Your task to perform on an android device: open chrome and create a bookmark for the current page Image 0: 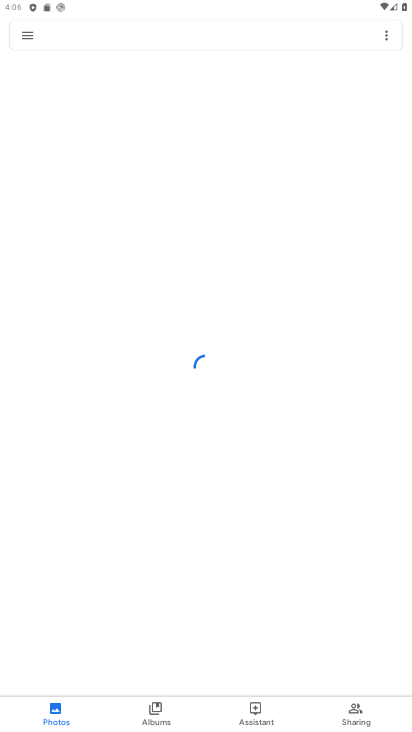
Step 0: press home button
Your task to perform on an android device: open chrome and create a bookmark for the current page Image 1: 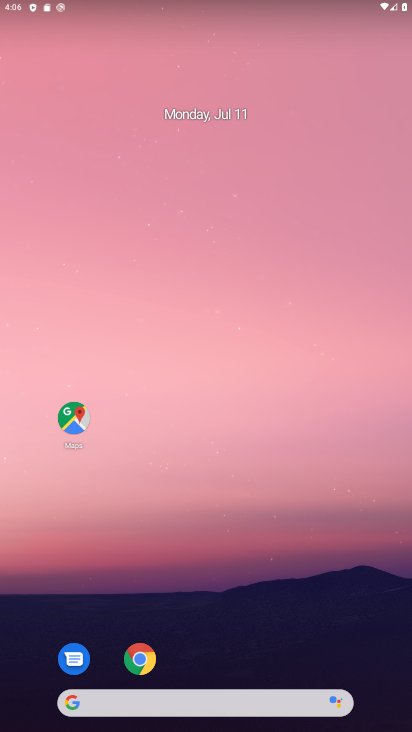
Step 1: click (149, 670)
Your task to perform on an android device: open chrome and create a bookmark for the current page Image 2: 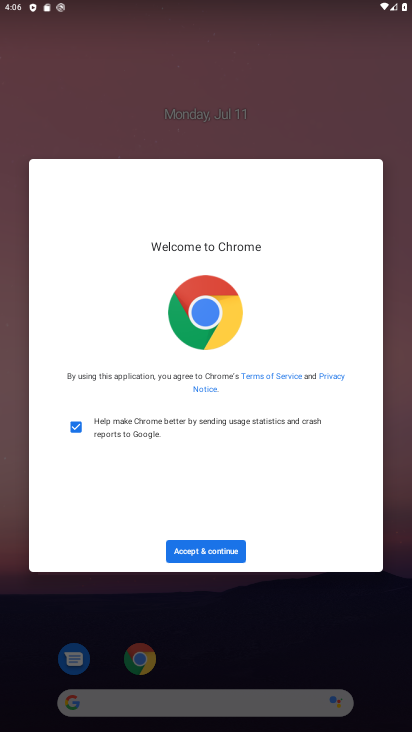
Step 2: click (219, 555)
Your task to perform on an android device: open chrome and create a bookmark for the current page Image 3: 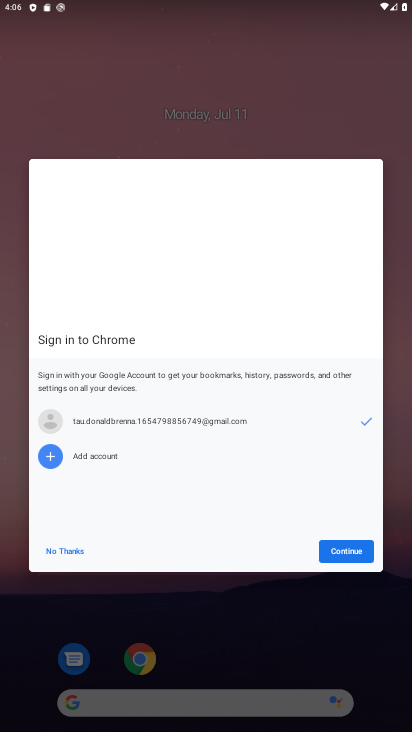
Step 3: click (335, 554)
Your task to perform on an android device: open chrome and create a bookmark for the current page Image 4: 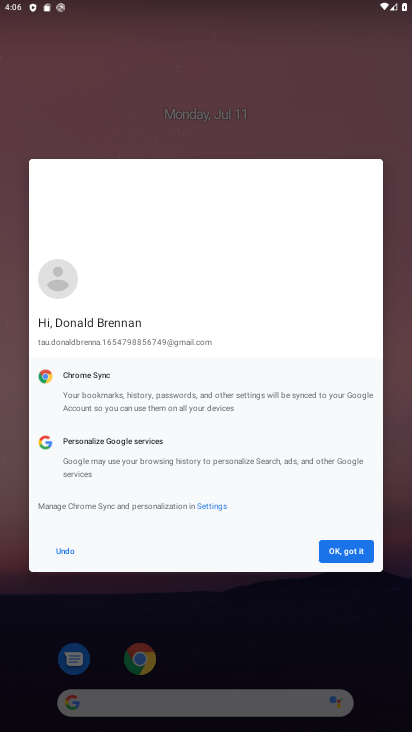
Step 4: click (335, 554)
Your task to perform on an android device: open chrome and create a bookmark for the current page Image 5: 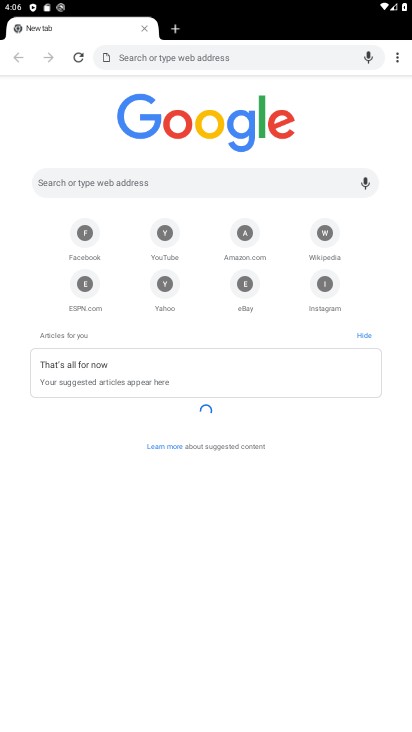
Step 5: click (401, 59)
Your task to perform on an android device: open chrome and create a bookmark for the current page Image 6: 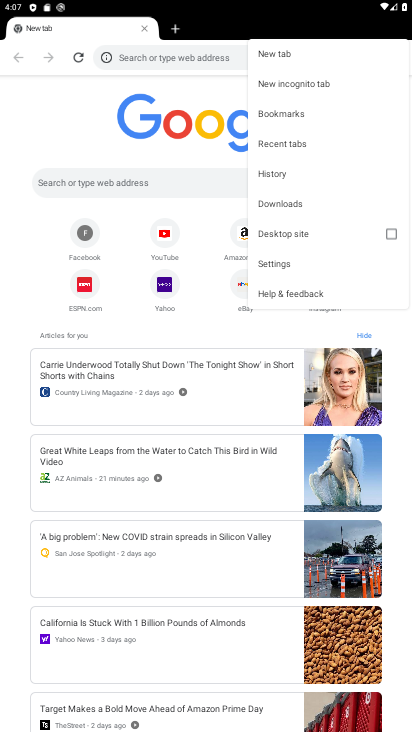
Step 6: click (184, 91)
Your task to perform on an android device: open chrome and create a bookmark for the current page Image 7: 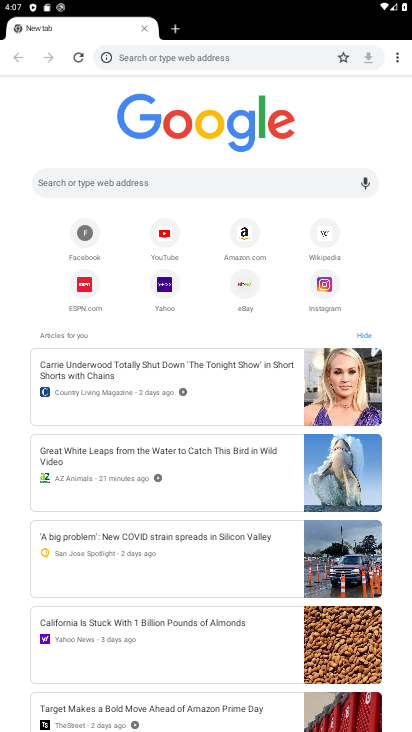
Step 7: click (345, 55)
Your task to perform on an android device: open chrome and create a bookmark for the current page Image 8: 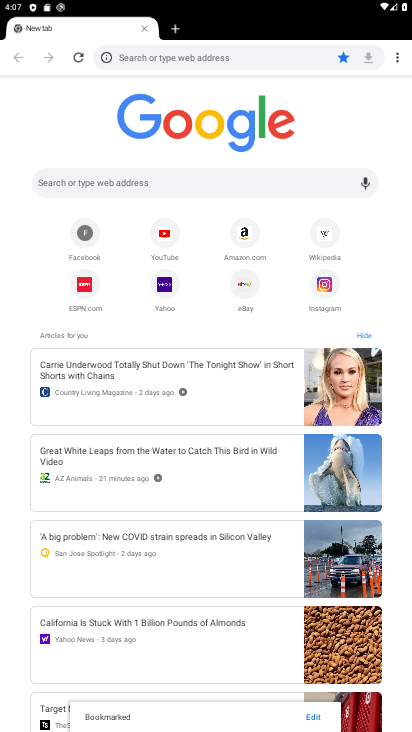
Step 8: task complete